Your task to perform on an android device: uninstall "Speedtest by Ookla" Image 0: 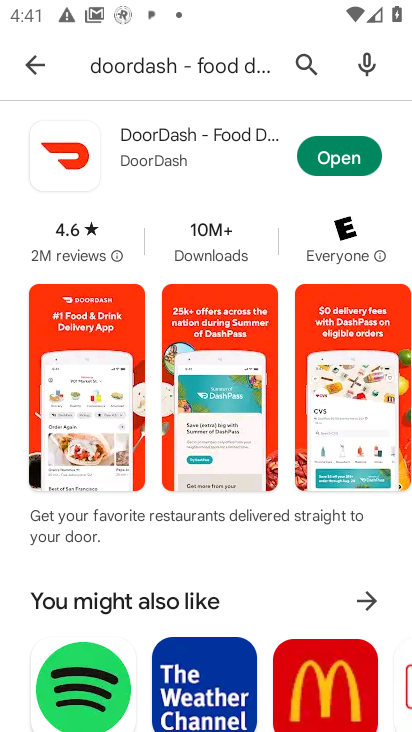
Step 0: click (292, 63)
Your task to perform on an android device: uninstall "Speedtest by Ookla" Image 1: 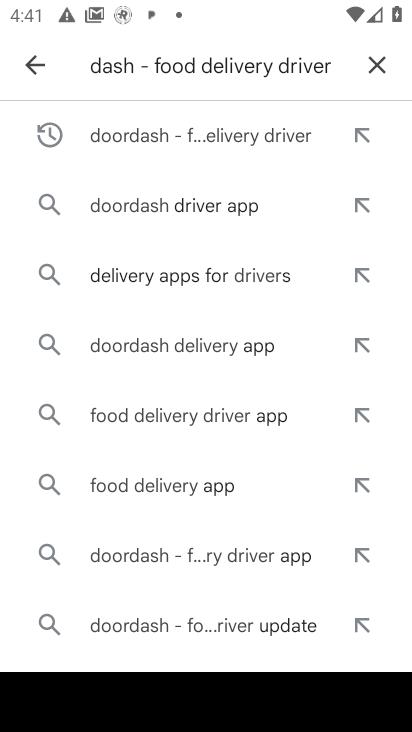
Step 1: click (369, 61)
Your task to perform on an android device: uninstall "Speedtest by Ookla" Image 2: 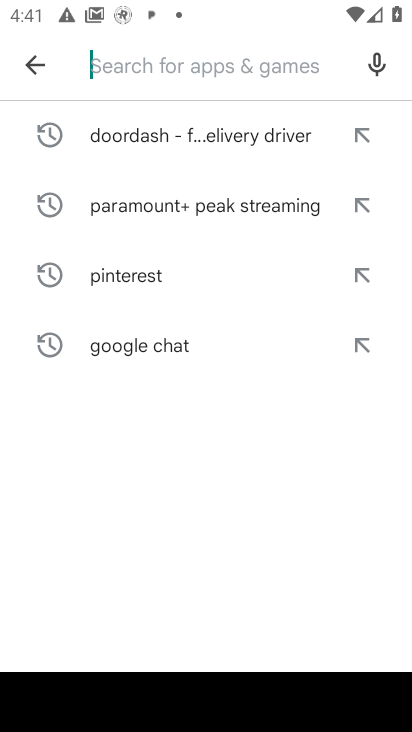
Step 2: type "Speedtest by Ookla"
Your task to perform on an android device: uninstall "Speedtest by Ookla" Image 3: 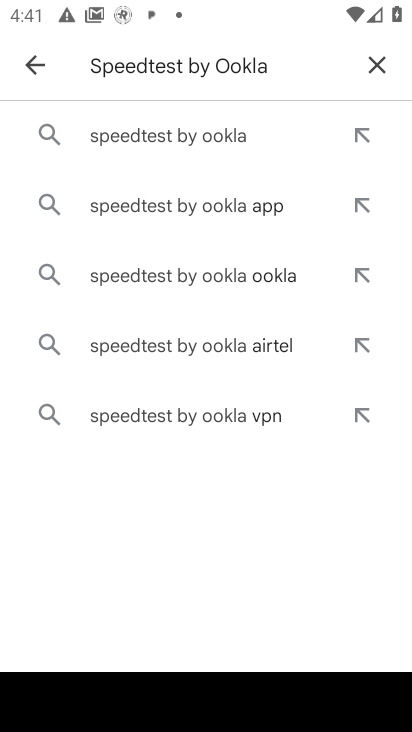
Step 3: type ""
Your task to perform on an android device: uninstall "Speedtest by Ookla" Image 4: 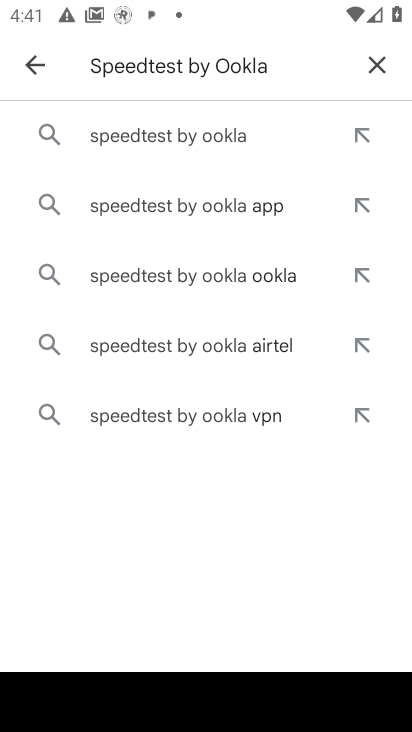
Step 4: click (196, 144)
Your task to perform on an android device: uninstall "Speedtest by Ookla" Image 5: 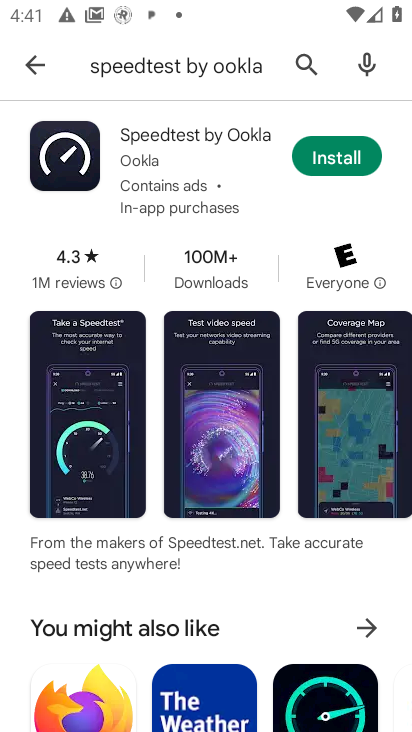
Step 5: task complete